Your task to perform on an android device: What is the speed of a tiger? Image 0: 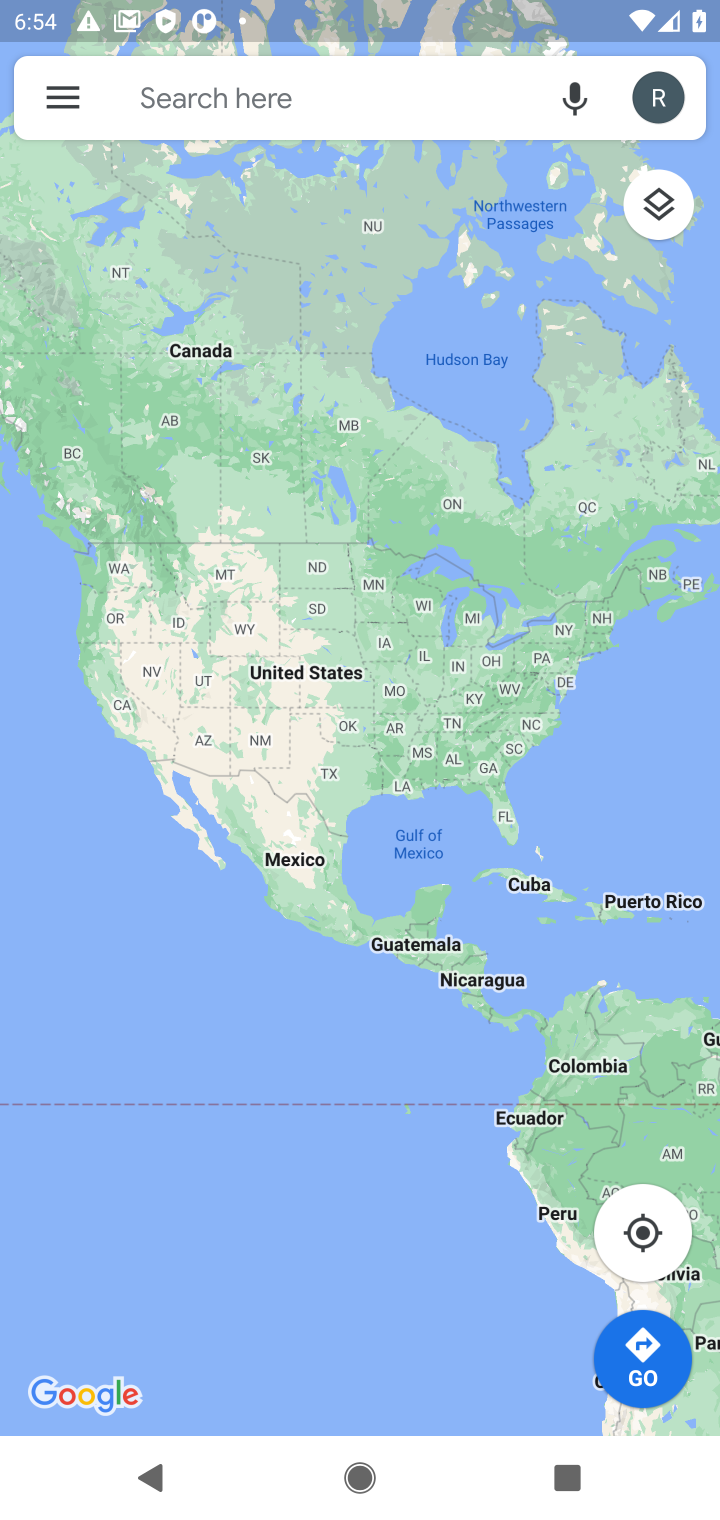
Step 0: press home button
Your task to perform on an android device: What is the speed of a tiger? Image 1: 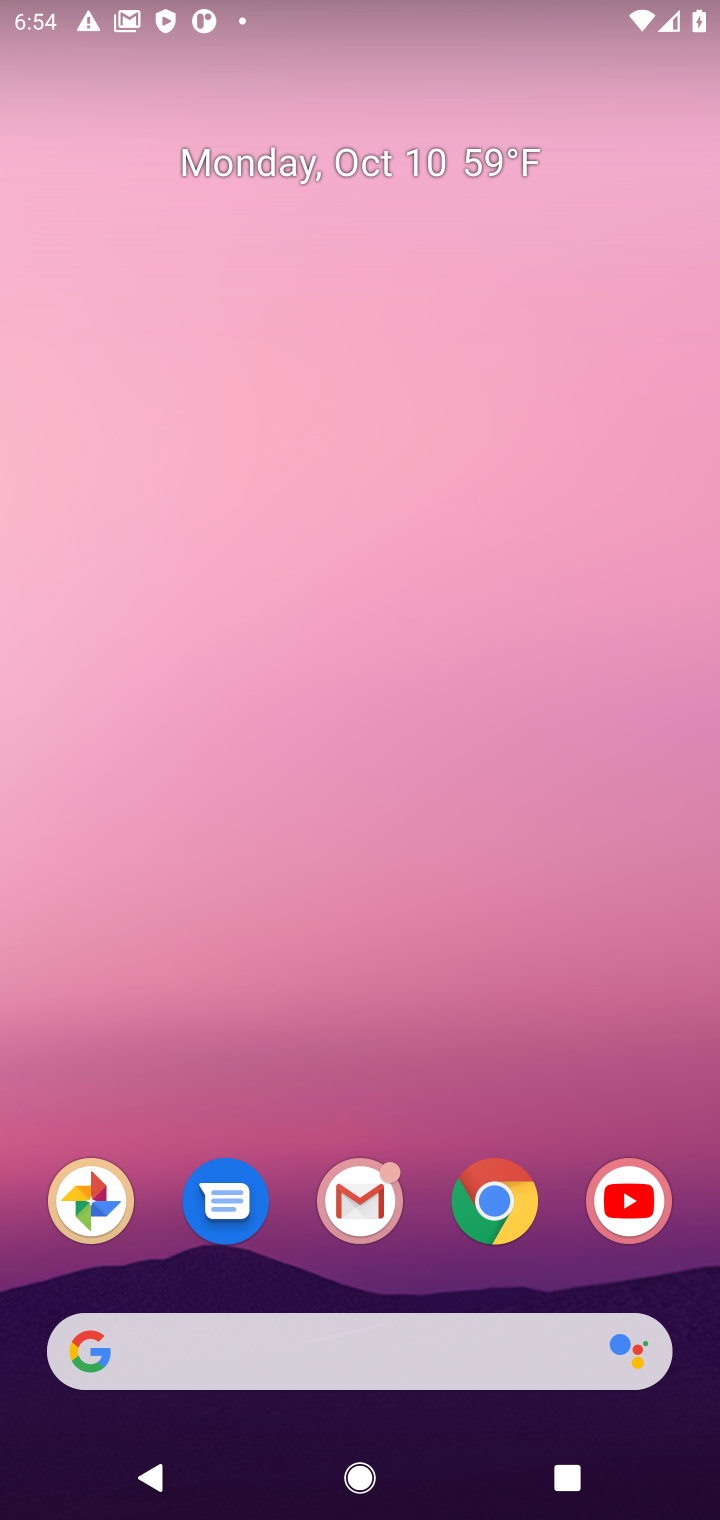
Step 1: drag from (303, 1260) to (268, 205)
Your task to perform on an android device: What is the speed of a tiger? Image 2: 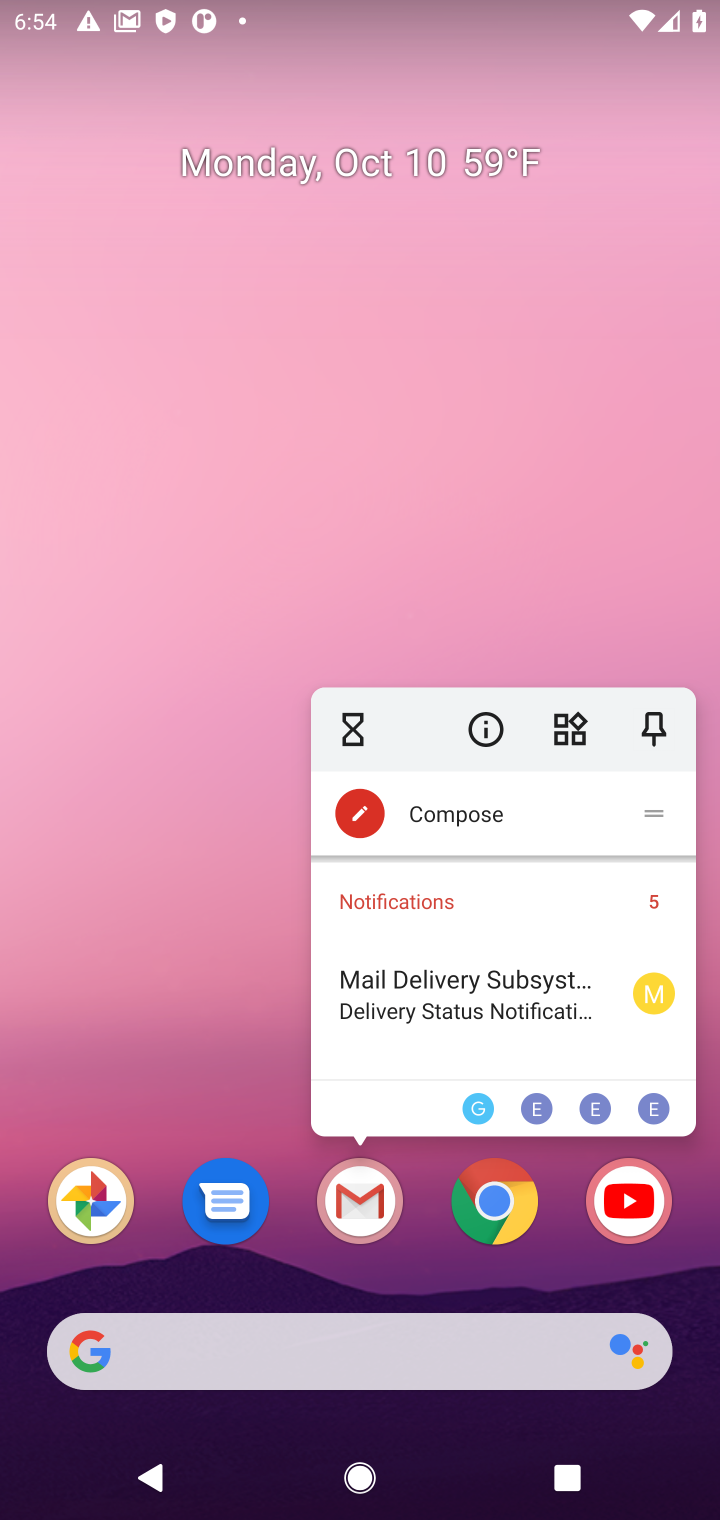
Step 2: drag from (241, 370) to (335, 80)
Your task to perform on an android device: What is the speed of a tiger? Image 3: 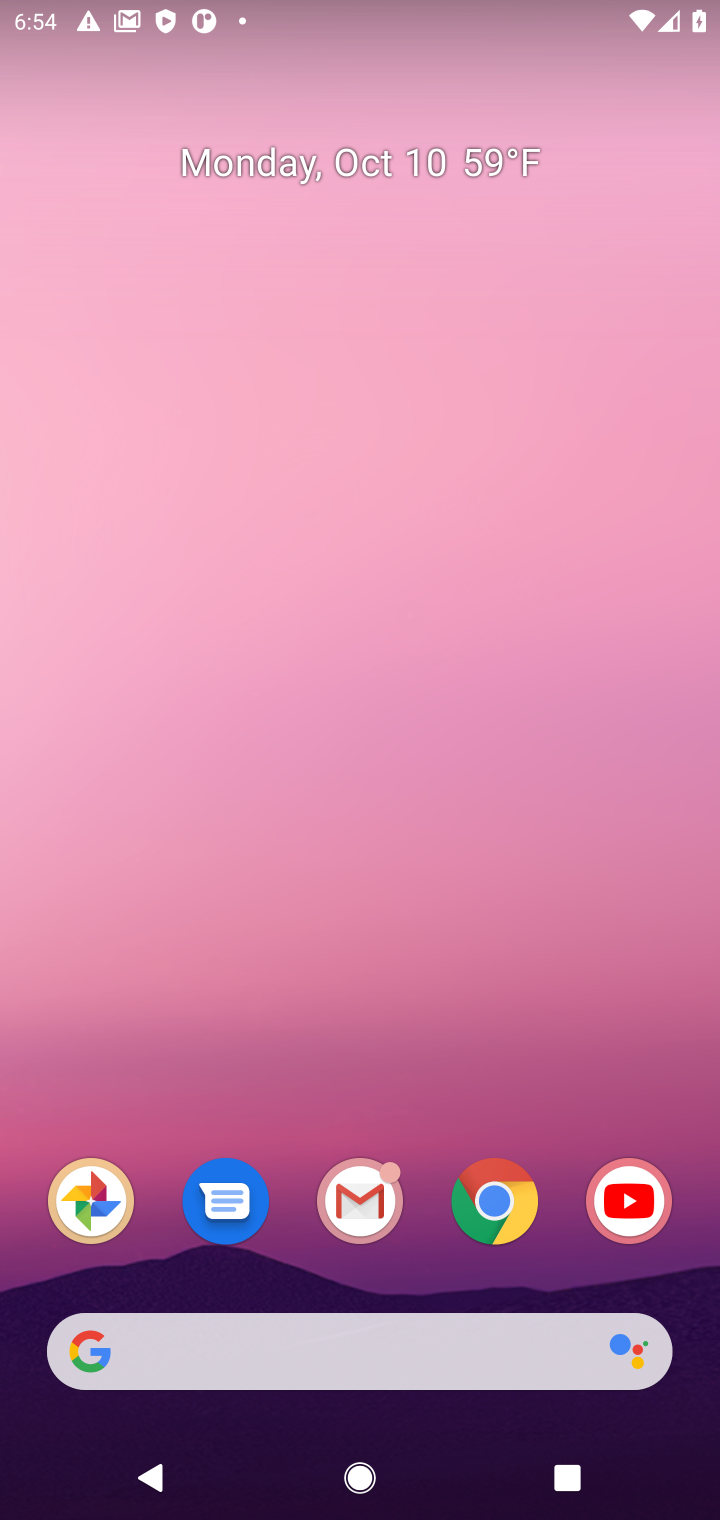
Step 3: drag from (351, 921) to (322, 158)
Your task to perform on an android device: What is the speed of a tiger? Image 4: 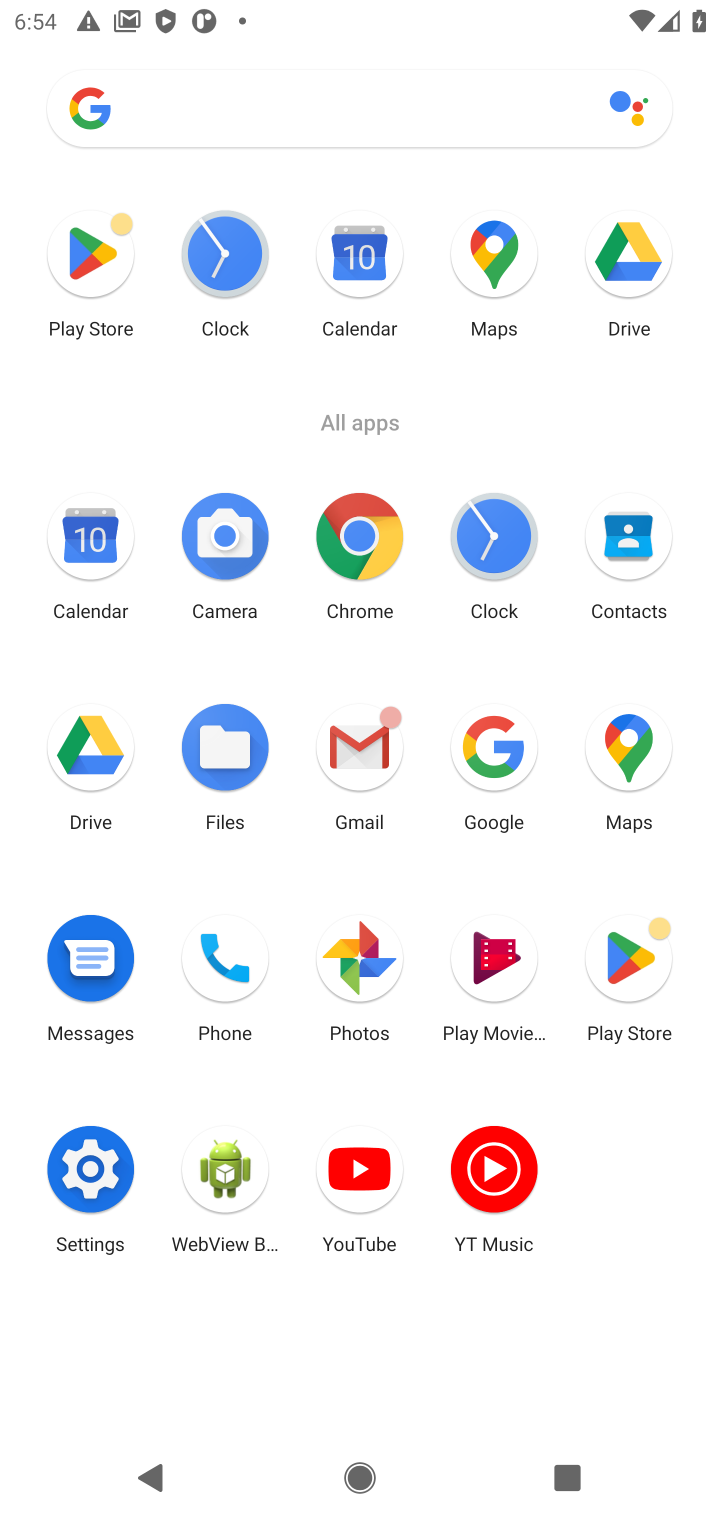
Step 4: click (483, 735)
Your task to perform on an android device: What is the speed of a tiger? Image 5: 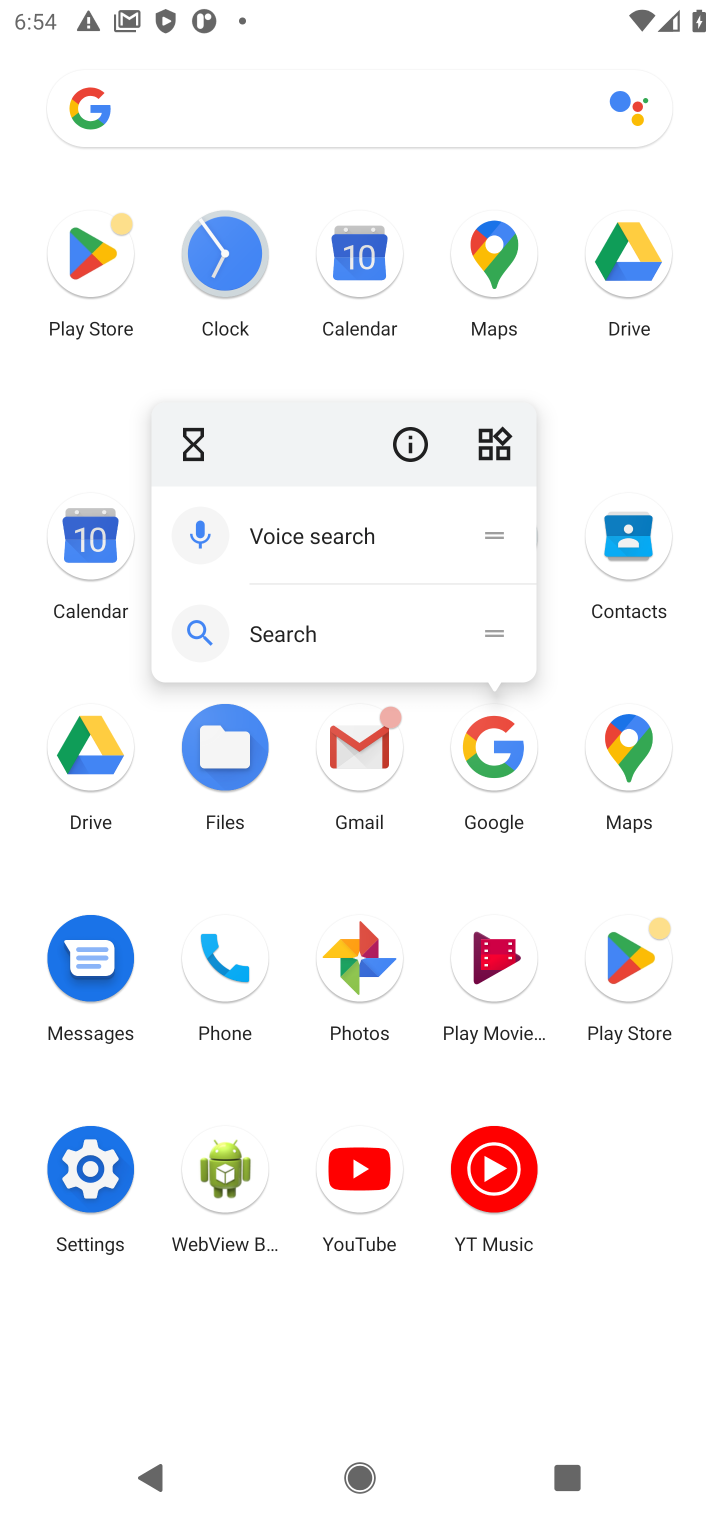
Step 5: click (490, 735)
Your task to perform on an android device: What is the speed of a tiger? Image 6: 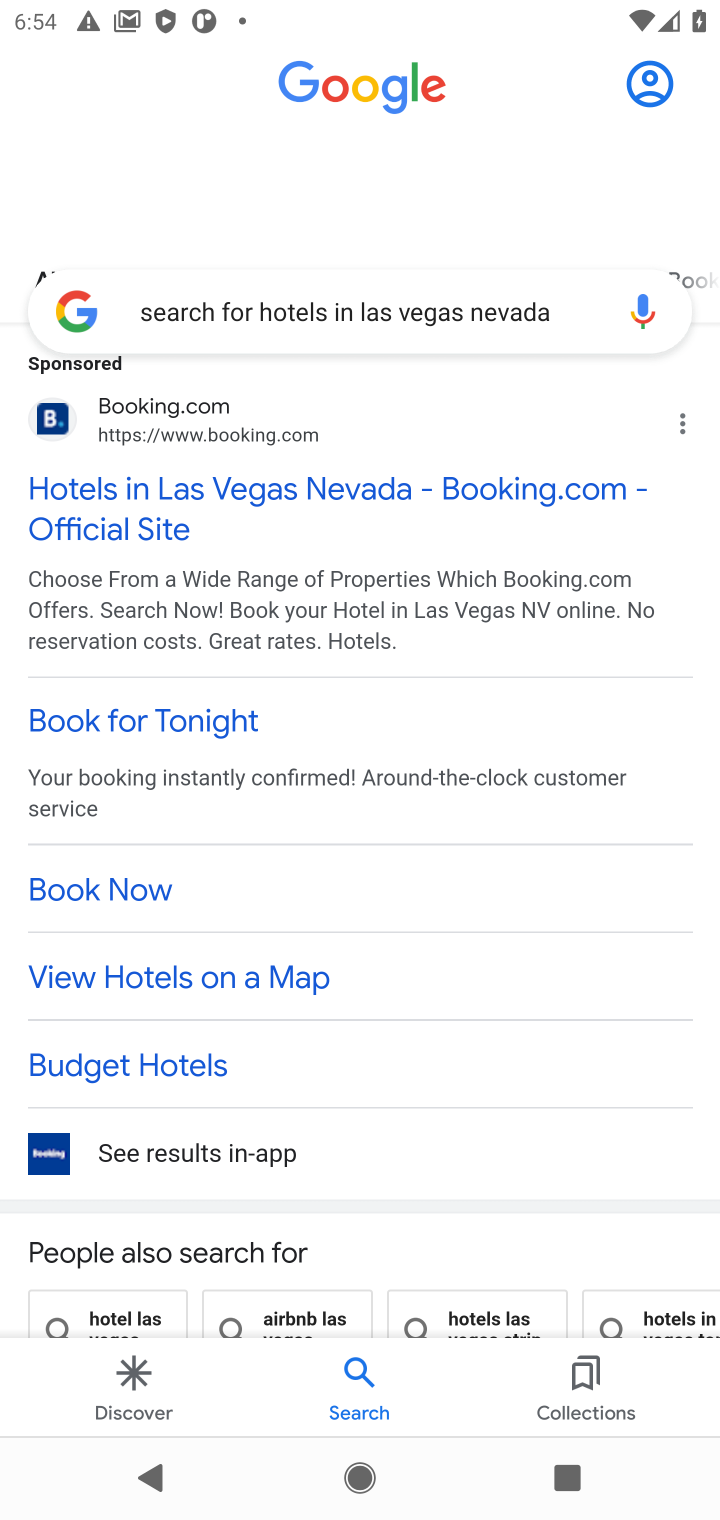
Step 6: click (304, 298)
Your task to perform on an android device: What is the speed of a tiger? Image 7: 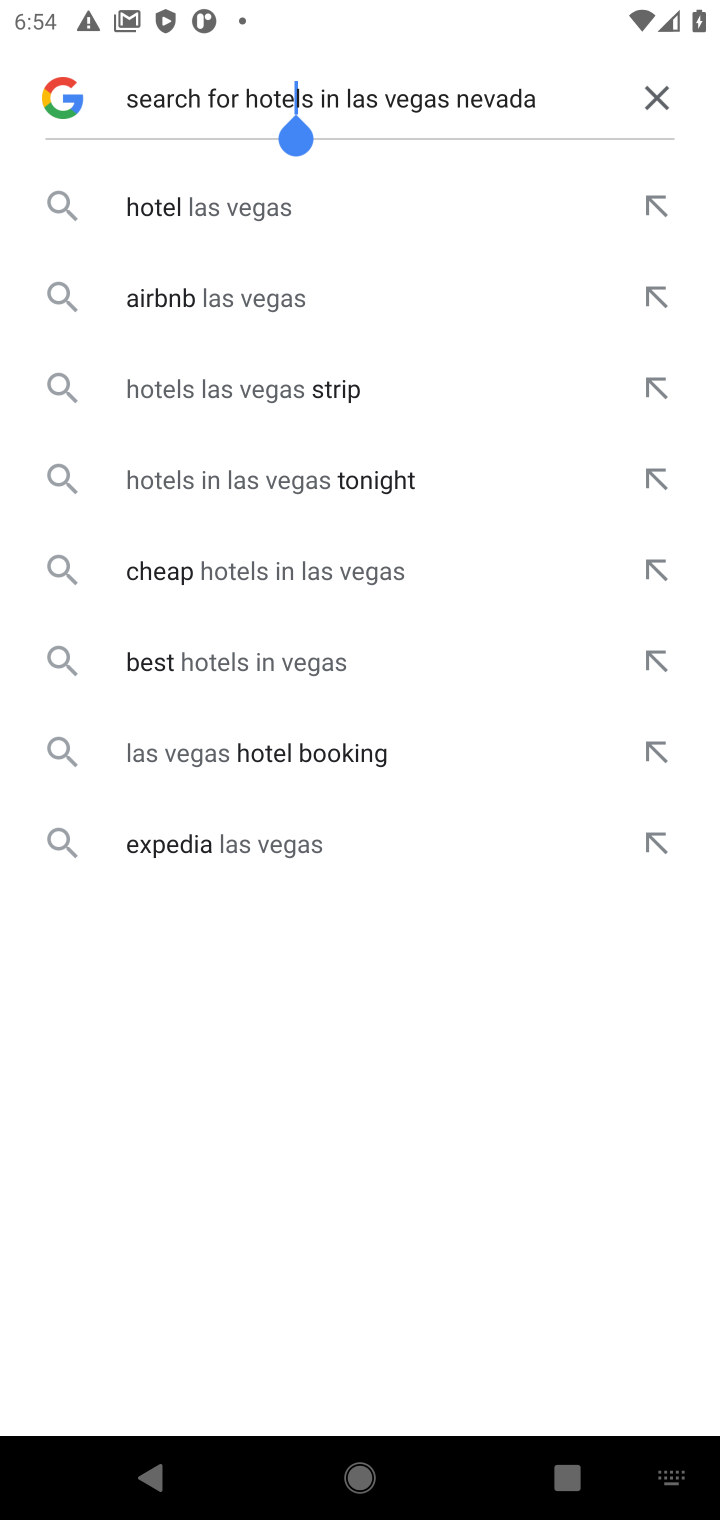
Step 7: click (658, 77)
Your task to perform on an android device: What is the speed of a tiger? Image 8: 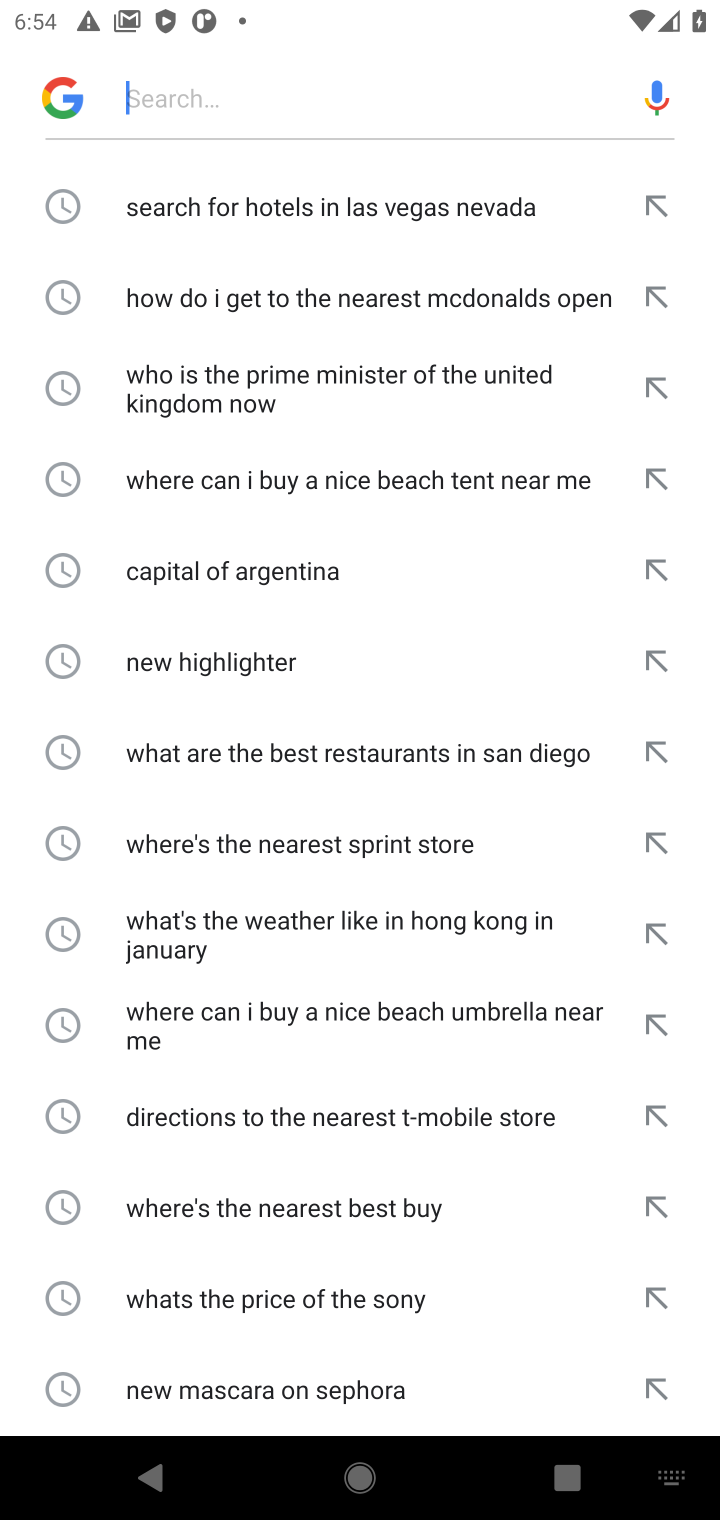
Step 8: type "What is the speed of a tiger?"
Your task to perform on an android device: What is the speed of a tiger? Image 9: 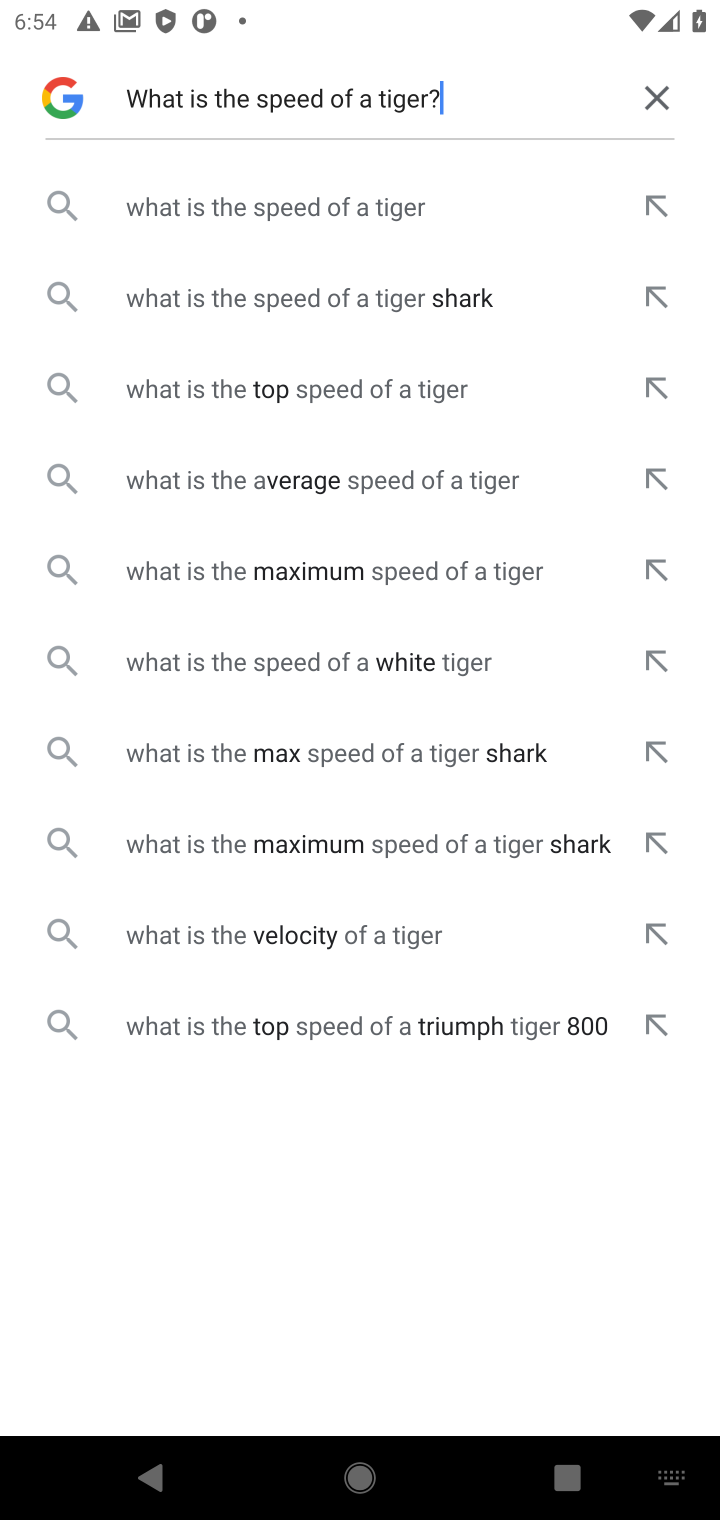
Step 9: click (383, 206)
Your task to perform on an android device: What is the speed of a tiger? Image 10: 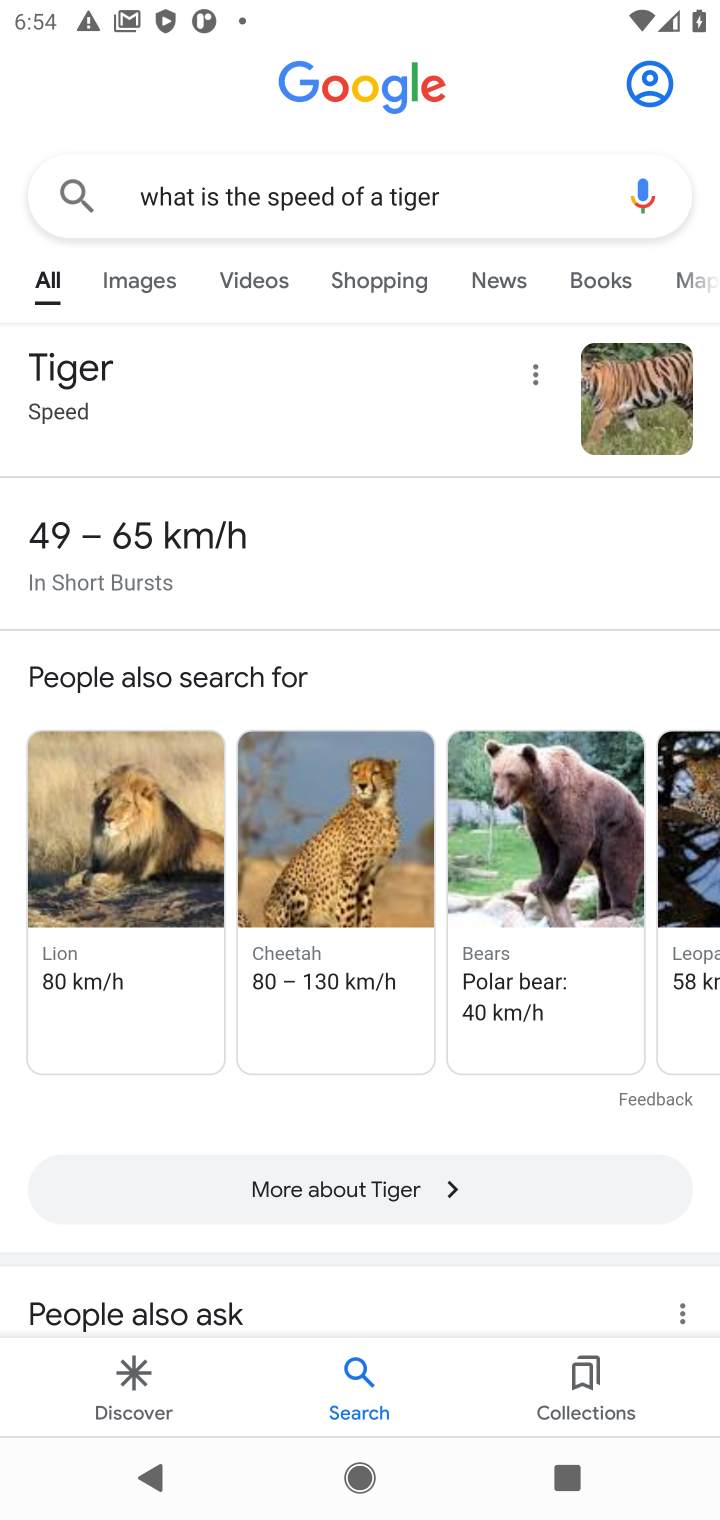
Step 10: task complete